Your task to perform on an android device: Go to network settings Image 0: 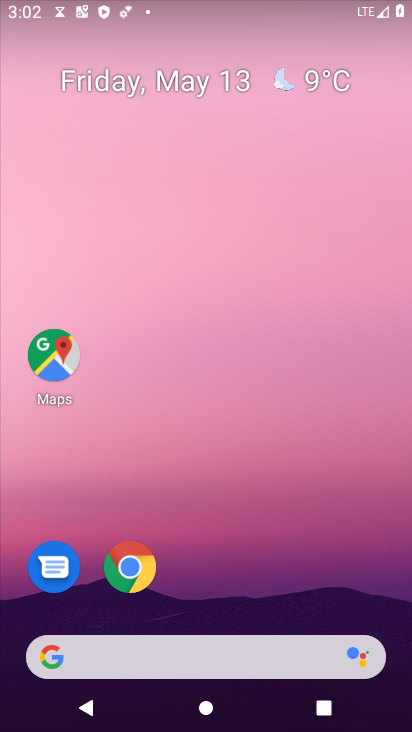
Step 0: drag from (301, 601) to (351, 16)
Your task to perform on an android device: Go to network settings Image 1: 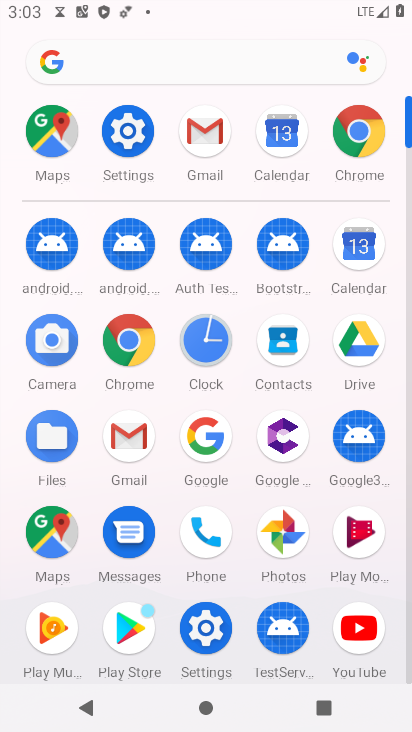
Step 1: click (134, 136)
Your task to perform on an android device: Go to network settings Image 2: 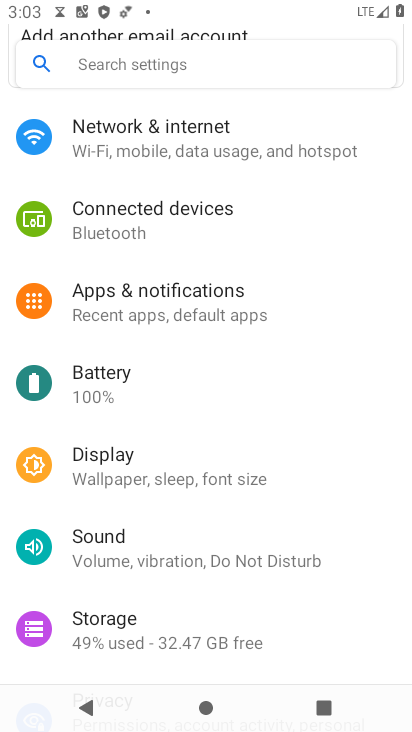
Step 2: click (137, 132)
Your task to perform on an android device: Go to network settings Image 3: 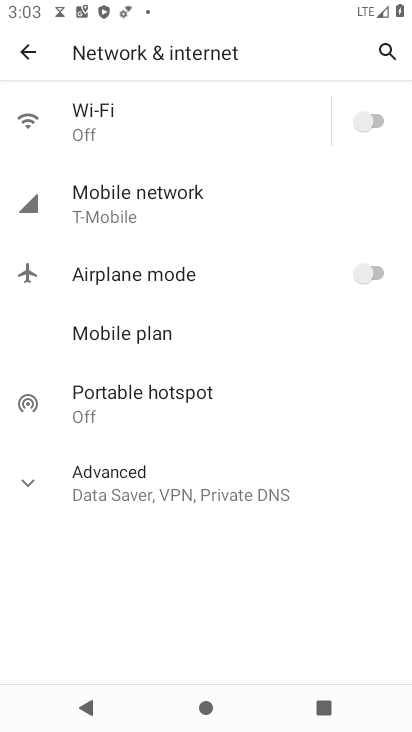
Step 3: click (130, 209)
Your task to perform on an android device: Go to network settings Image 4: 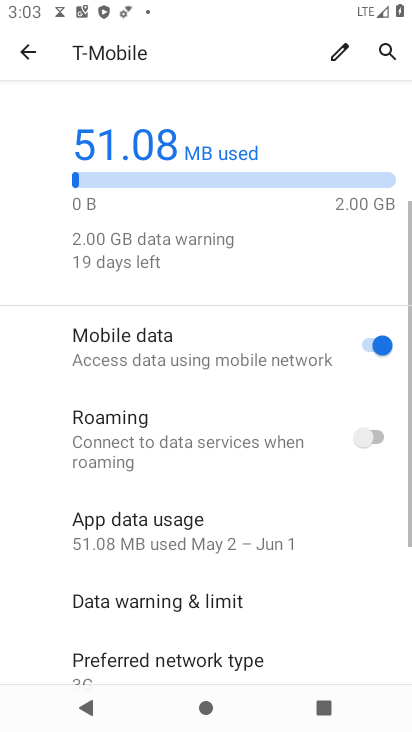
Step 4: drag from (217, 573) to (244, 60)
Your task to perform on an android device: Go to network settings Image 5: 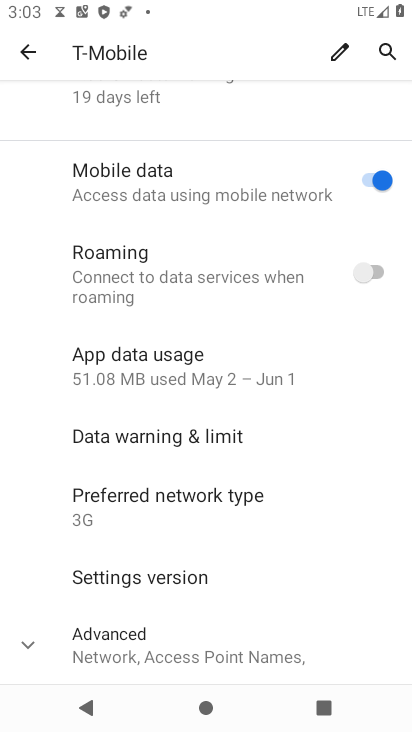
Step 5: click (28, 651)
Your task to perform on an android device: Go to network settings Image 6: 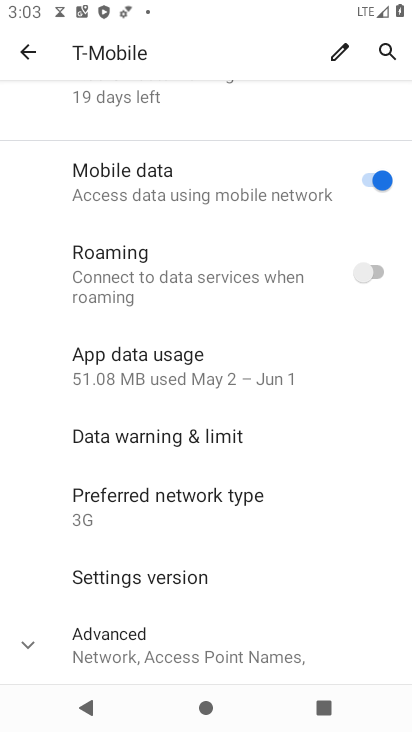
Step 6: drag from (210, 648) to (223, 325)
Your task to perform on an android device: Go to network settings Image 7: 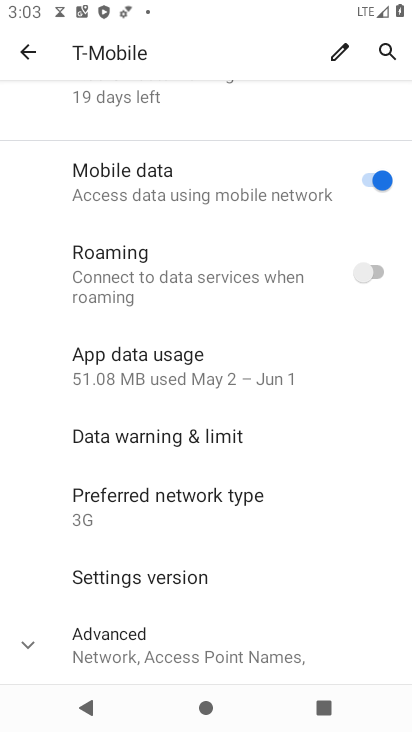
Step 7: click (22, 648)
Your task to perform on an android device: Go to network settings Image 8: 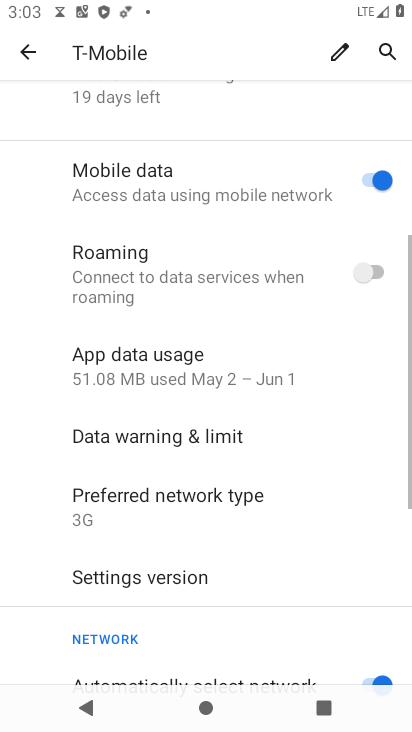
Step 8: task complete